Your task to perform on an android device: What's the weather? Image 0: 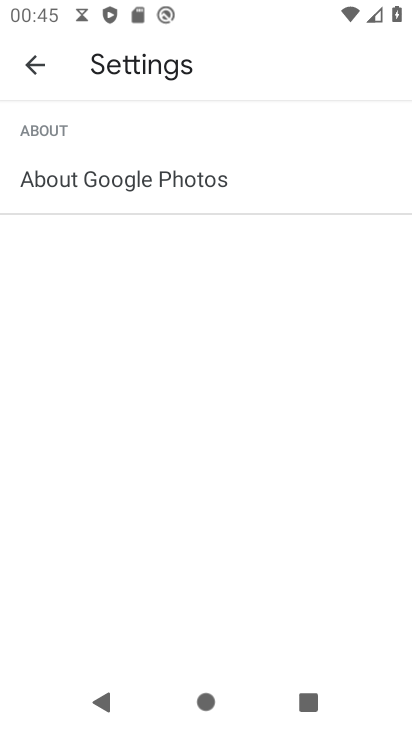
Step 0: press home button
Your task to perform on an android device: What's the weather? Image 1: 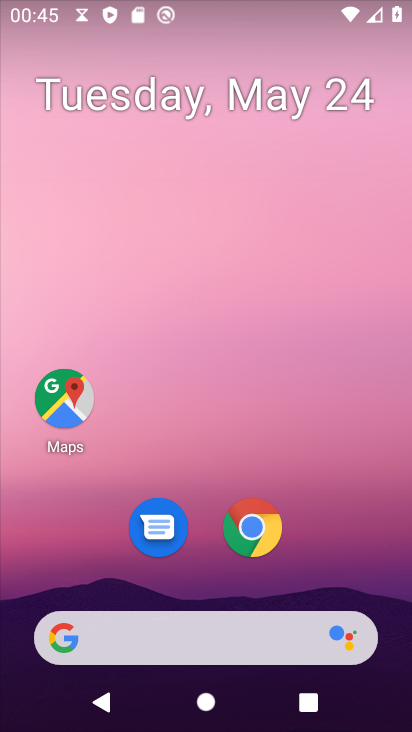
Step 1: click (70, 635)
Your task to perform on an android device: What's the weather? Image 2: 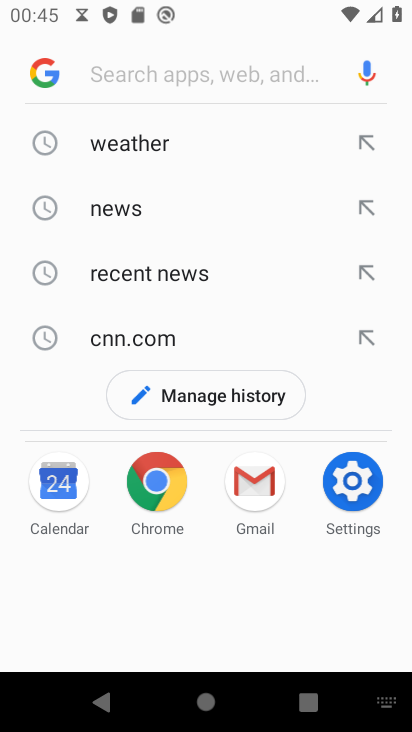
Step 2: click (135, 138)
Your task to perform on an android device: What's the weather? Image 3: 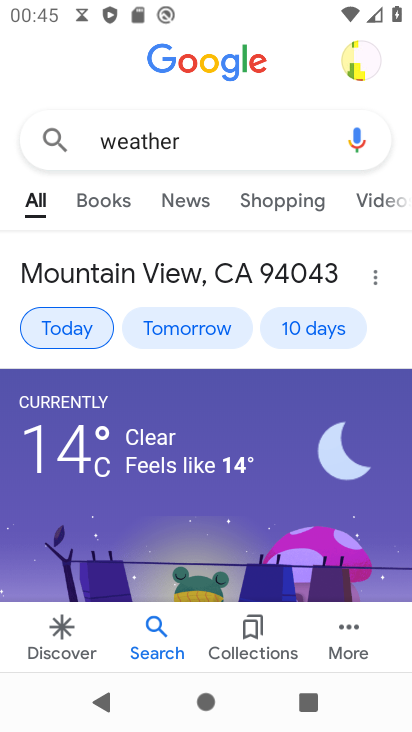
Step 3: task complete